Your task to perform on an android device: Open Google Chrome and click the shortcut for Amazon.com Image 0: 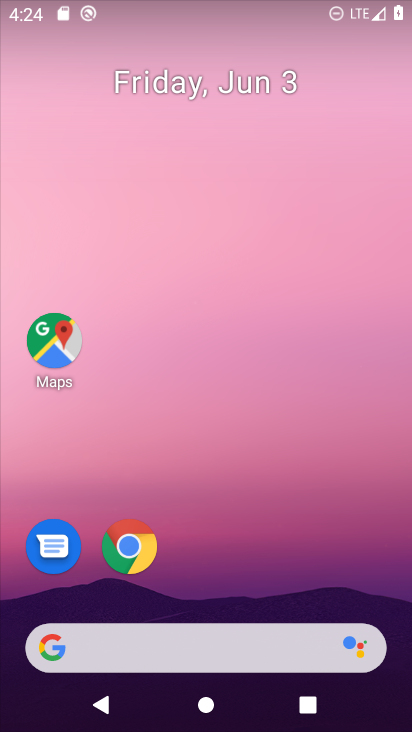
Step 0: click (142, 543)
Your task to perform on an android device: Open Google Chrome and click the shortcut for Amazon.com Image 1: 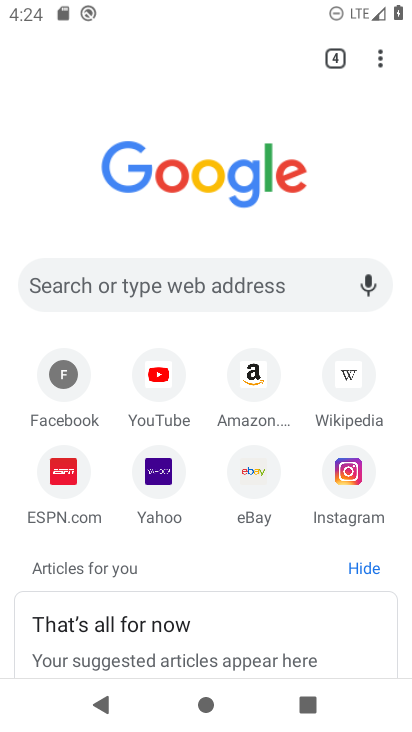
Step 1: click (257, 378)
Your task to perform on an android device: Open Google Chrome and click the shortcut for Amazon.com Image 2: 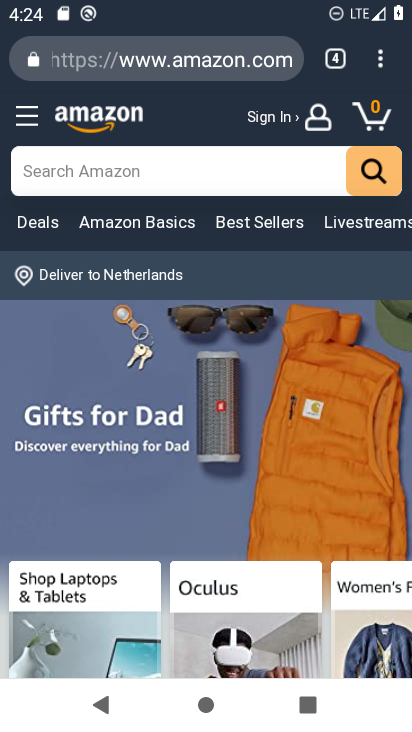
Step 2: task complete